Your task to perform on an android device: See recent photos Image 0: 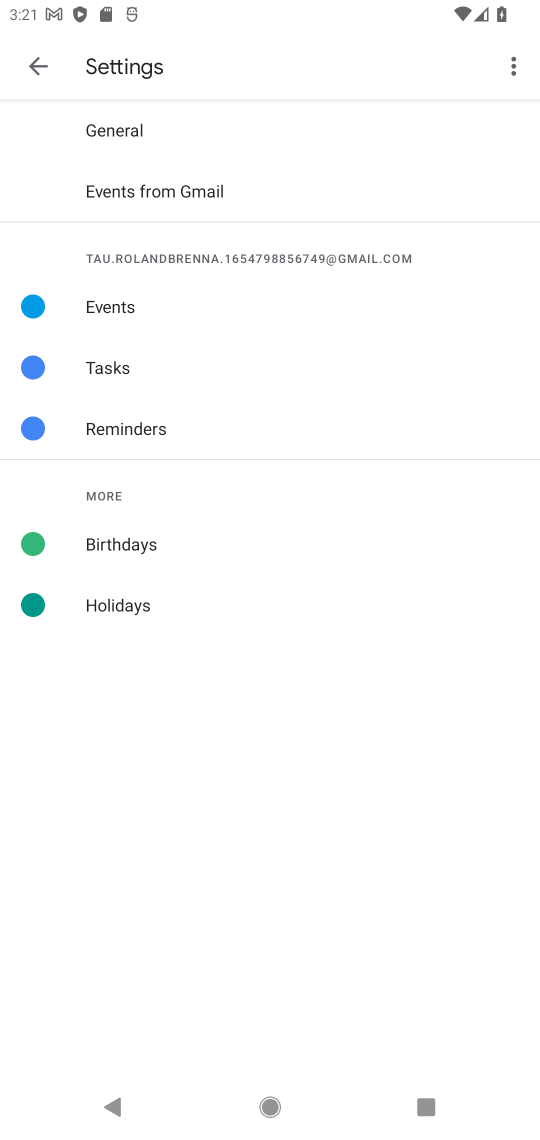
Step 0: press home button
Your task to perform on an android device: See recent photos Image 1: 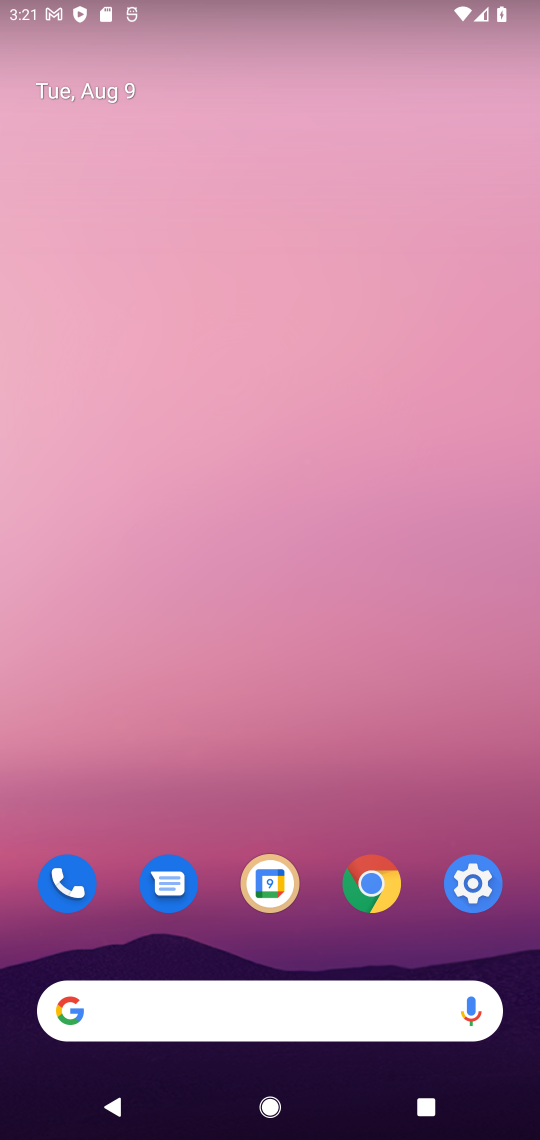
Step 1: drag from (357, 1071) to (243, 116)
Your task to perform on an android device: See recent photos Image 2: 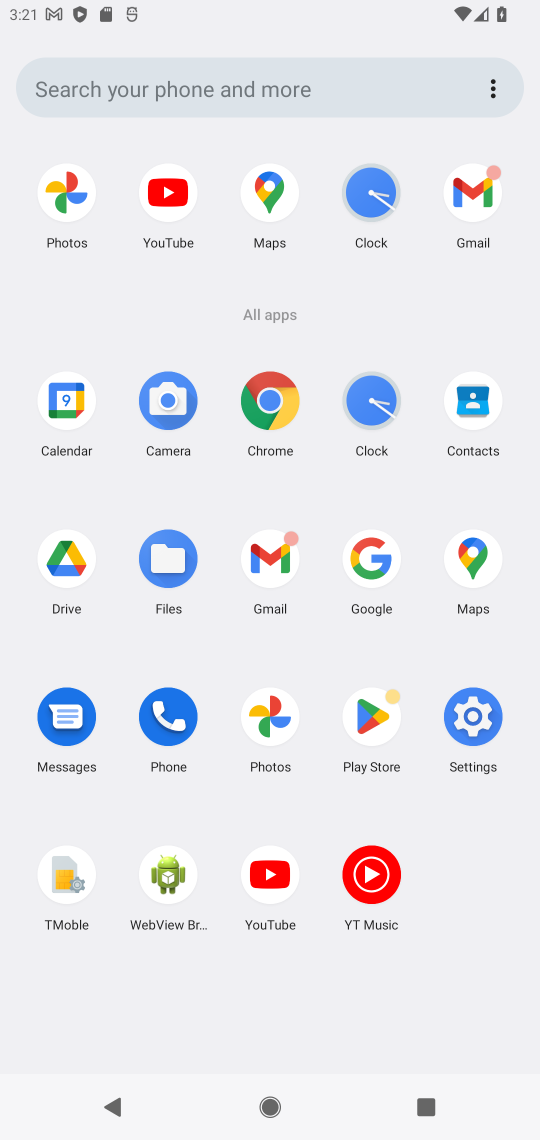
Step 2: click (266, 722)
Your task to perform on an android device: See recent photos Image 3: 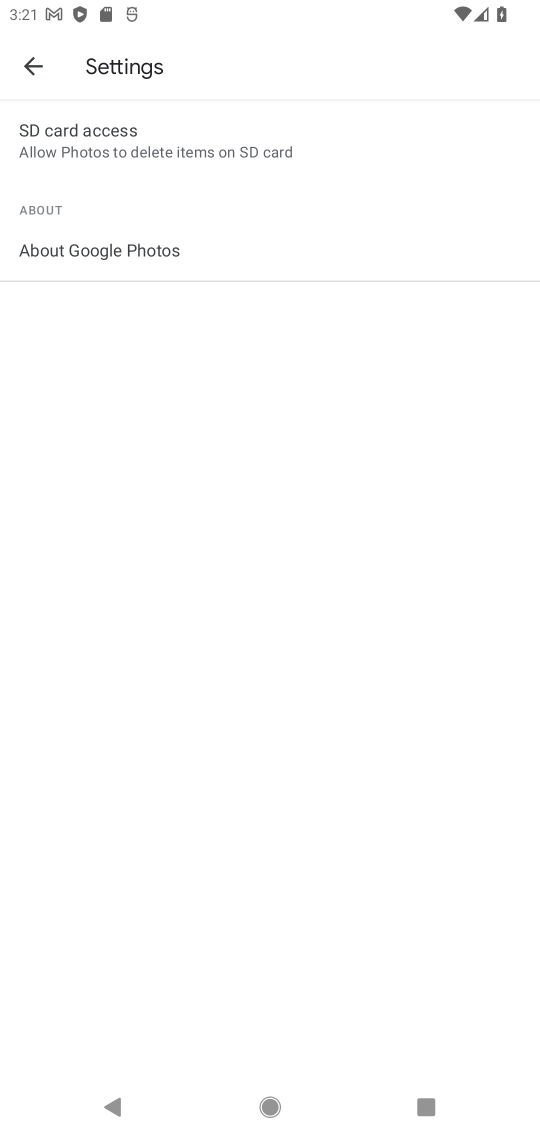
Step 3: click (30, 58)
Your task to perform on an android device: See recent photos Image 4: 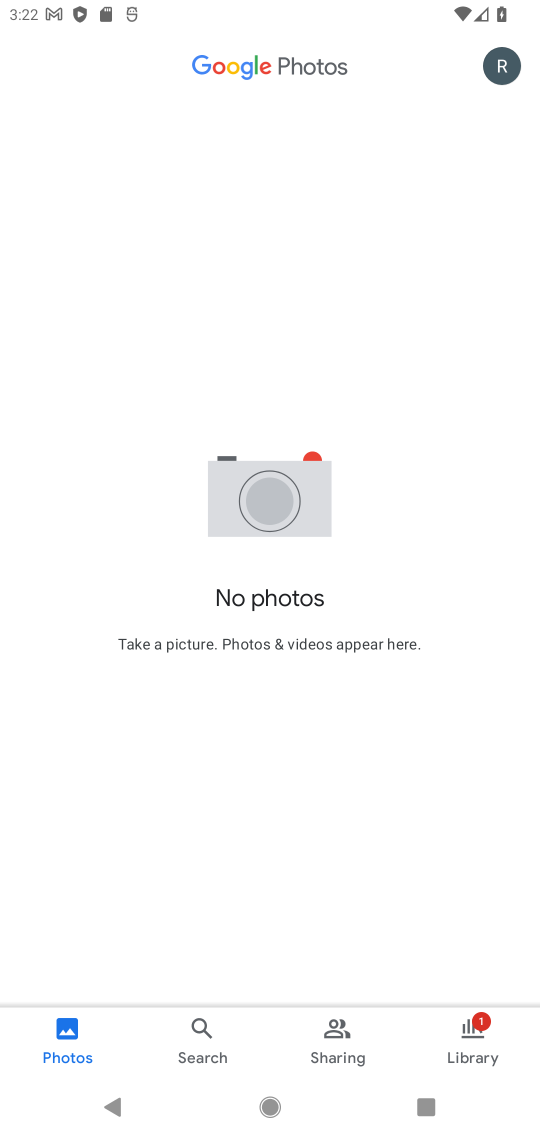
Step 4: task complete